Your task to perform on an android device: Go to wifi settings Image 0: 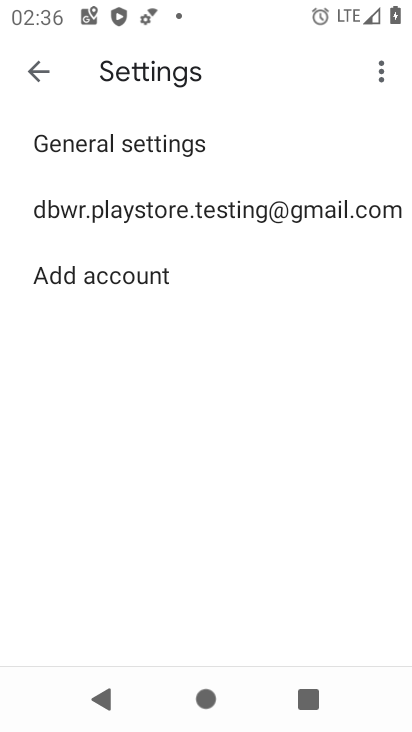
Step 0: press home button
Your task to perform on an android device: Go to wifi settings Image 1: 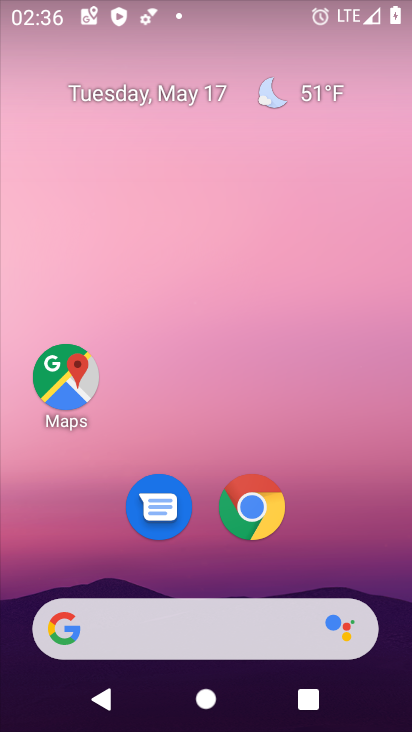
Step 1: drag from (320, 569) to (314, 106)
Your task to perform on an android device: Go to wifi settings Image 2: 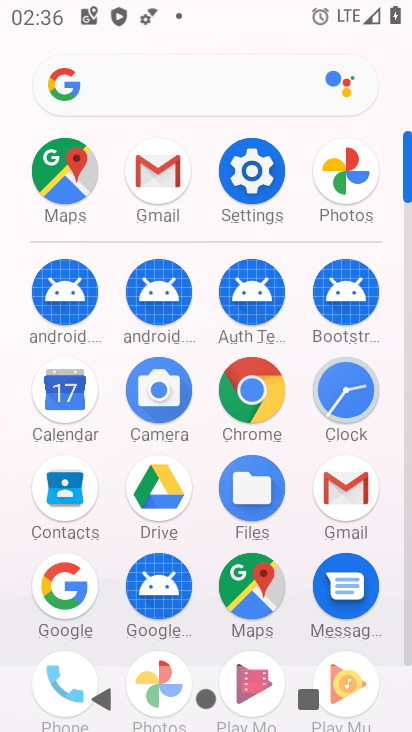
Step 2: click (239, 174)
Your task to perform on an android device: Go to wifi settings Image 3: 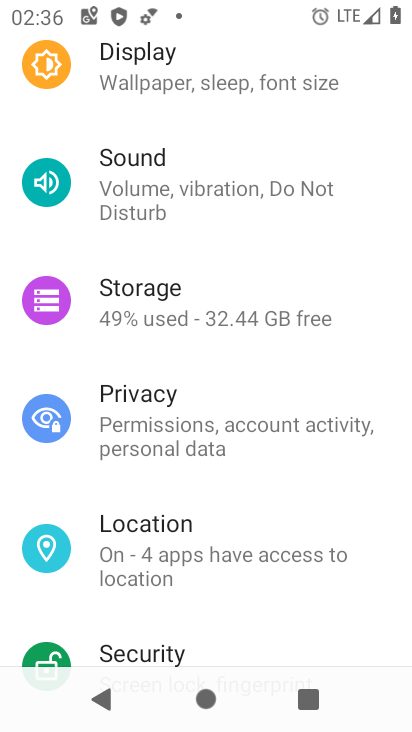
Step 3: drag from (198, 243) to (245, 451)
Your task to perform on an android device: Go to wifi settings Image 4: 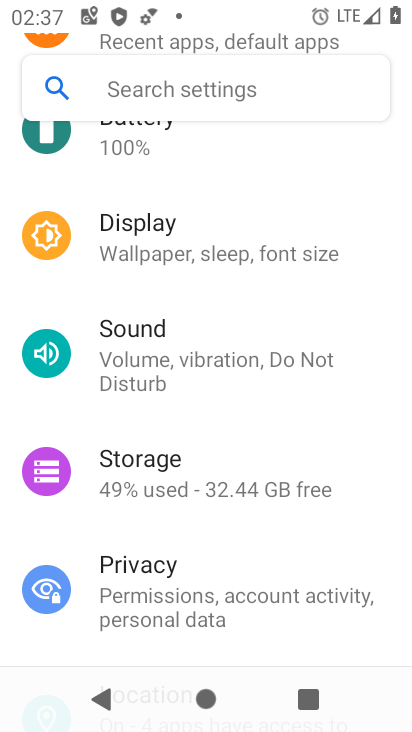
Step 4: drag from (237, 256) to (262, 428)
Your task to perform on an android device: Go to wifi settings Image 5: 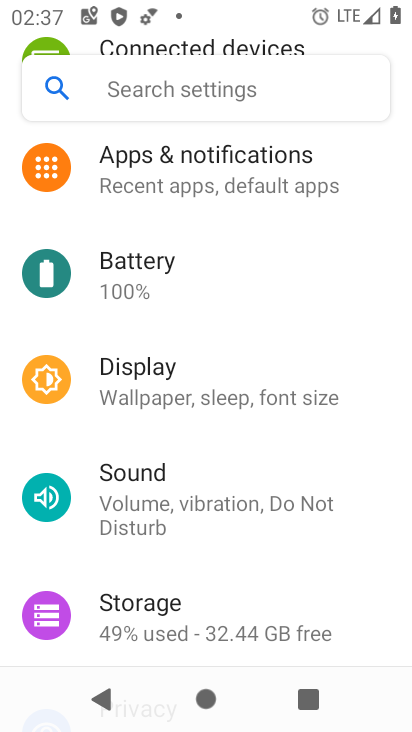
Step 5: drag from (267, 290) to (299, 579)
Your task to perform on an android device: Go to wifi settings Image 6: 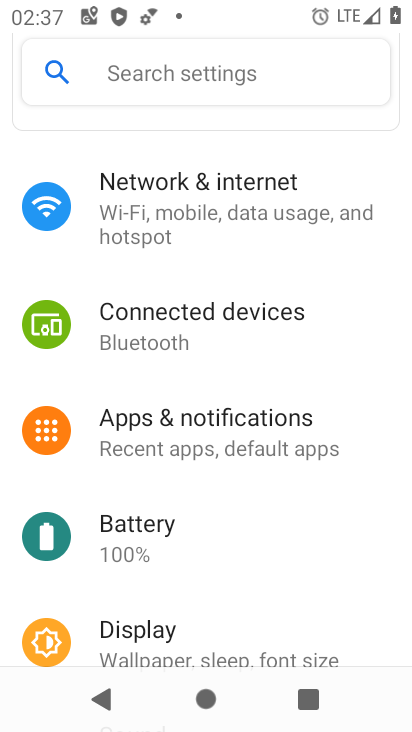
Step 6: drag from (196, 293) to (214, 483)
Your task to perform on an android device: Go to wifi settings Image 7: 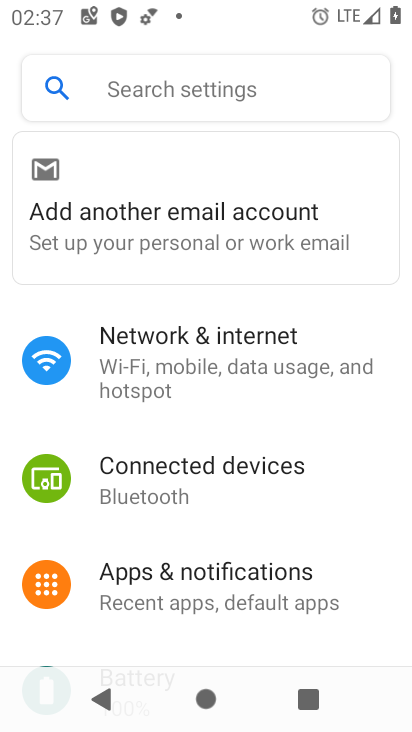
Step 7: click (155, 335)
Your task to perform on an android device: Go to wifi settings Image 8: 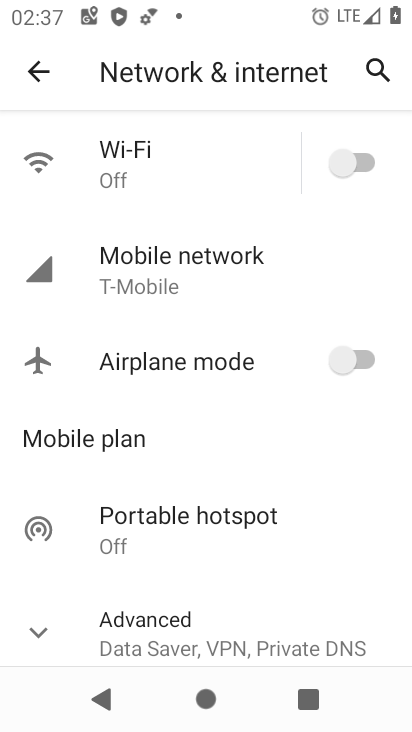
Step 8: click (142, 160)
Your task to perform on an android device: Go to wifi settings Image 9: 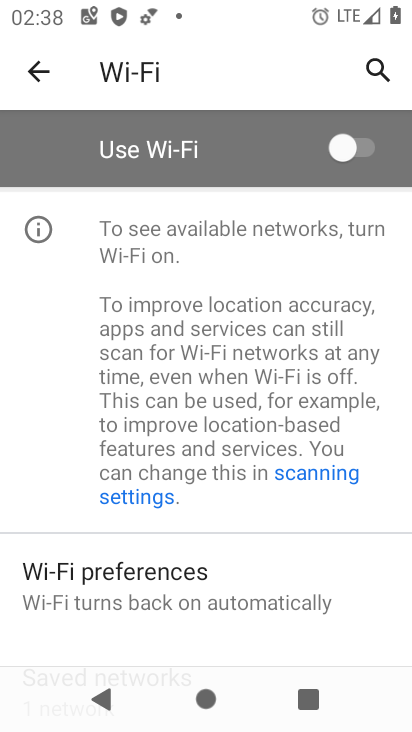
Step 9: task complete